Your task to perform on an android device: Open Chrome and go to settings Image 0: 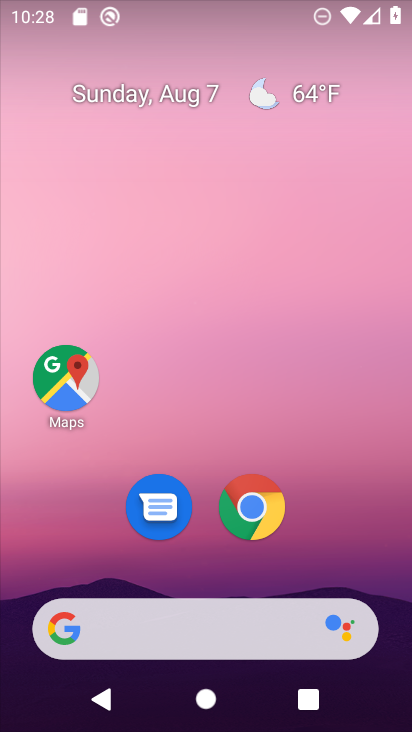
Step 0: drag from (389, 512) to (289, 0)
Your task to perform on an android device: Open Chrome and go to settings Image 1: 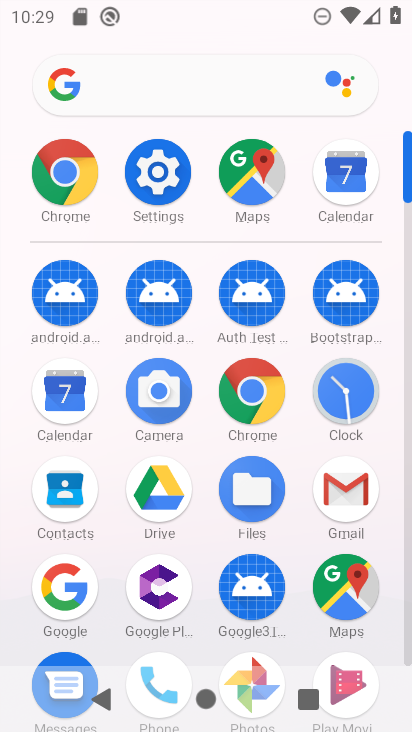
Step 1: click (252, 384)
Your task to perform on an android device: Open Chrome and go to settings Image 2: 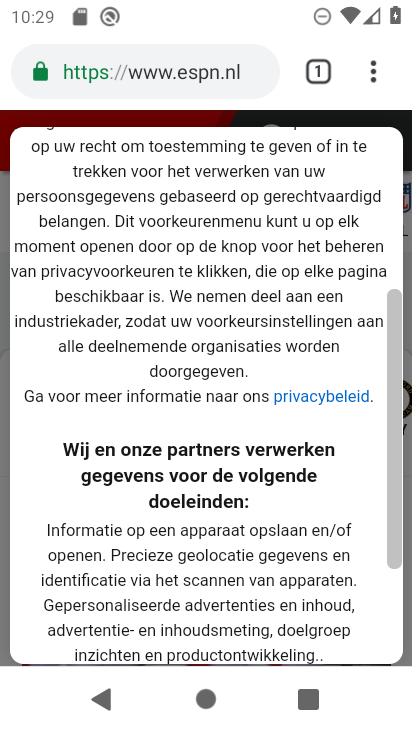
Step 2: task complete